Your task to perform on an android device: Add "apple airpods" to the cart on amazon.com, then select checkout. Image 0: 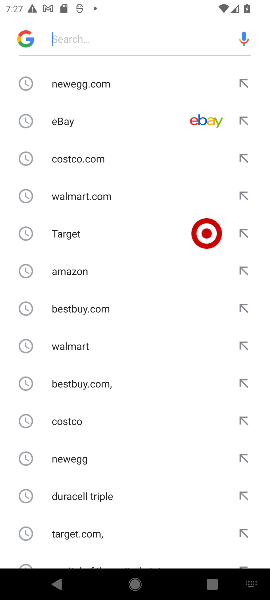
Step 0: click (90, 267)
Your task to perform on an android device: Add "apple airpods" to the cart on amazon.com, then select checkout. Image 1: 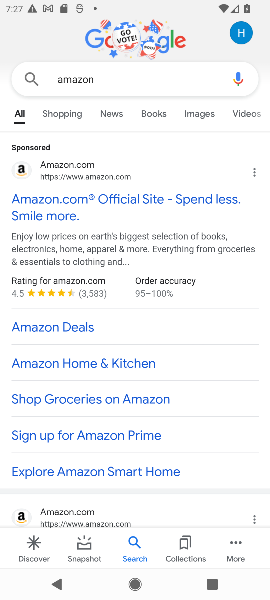
Step 1: click (30, 204)
Your task to perform on an android device: Add "apple airpods" to the cart on amazon.com, then select checkout. Image 2: 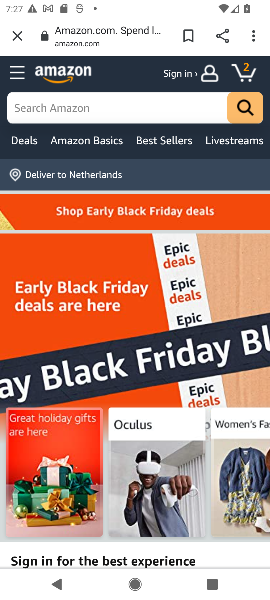
Step 2: click (150, 97)
Your task to perform on an android device: Add "apple airpods" to the cart on amazon.com, then select checkout. Image 3: 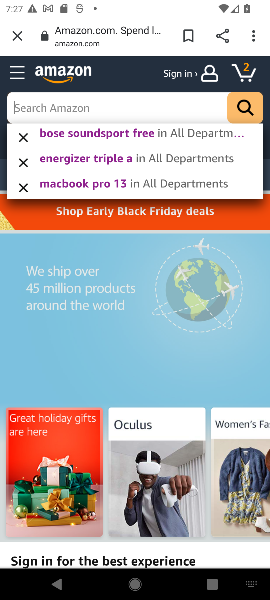
Step 3: type "apple air pods"
Your task to perform on an android device: Add "apple airpods" to the cart on amazon.com, then select checkout. Image 4: 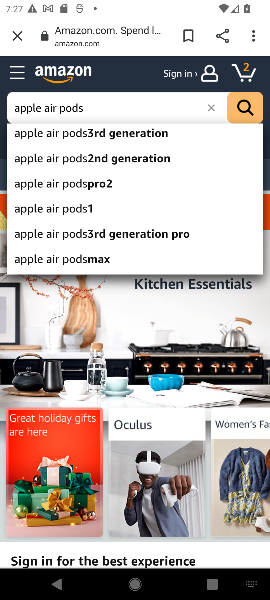
Step 4: click (255, 105)
Your task to perform on an android device: Add "apple airpods" to the cart on amazon.com, then select checkout. Image 5: 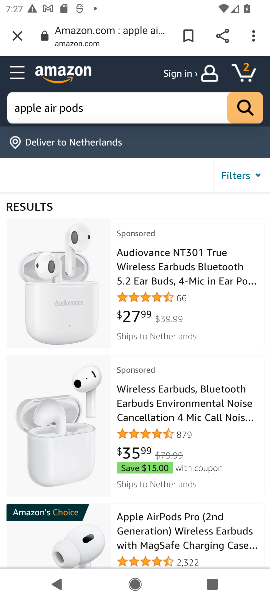
Step 5: click (159, 525)
Your task to perform on an android device: Add "apple airpods" to the cart on amazon.com, then select checkout. Image 6: 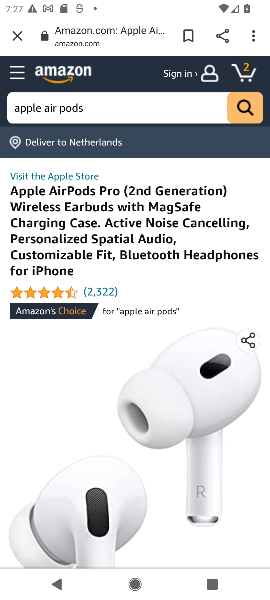
Step 6: drag from (182, 560) to (188, 147)
Your task to perform on an android device: Add "apple airpods" to the cart on amazon.com, then select checkout. Image 7: 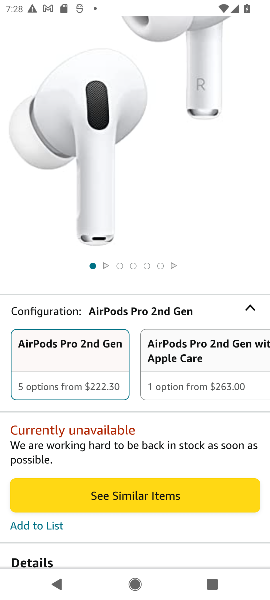
Step 7: click (152, 497)
Your task to perform on an android device: Add "apple airpods" to the cart on amazon.com, then select checkout. Image 8: 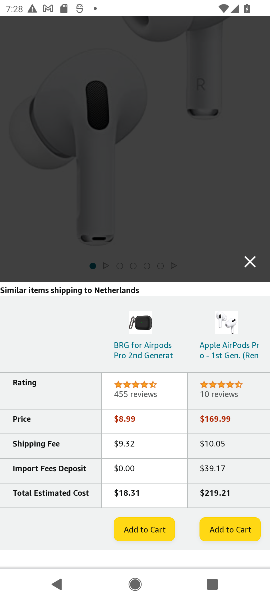
Step 8: click (209, 526)
Your task to perform on an android device: Add "apple airpods" to the cart on amazon.com, then select checkout. Image 9: 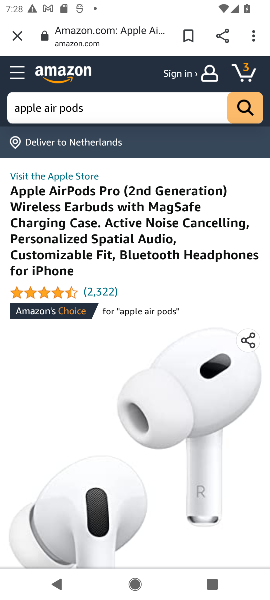
Step 9: click (245, 78)
Your task to perform on an android device: Add "apple airpods" to the cart on amazon.com, then select checkout. Image 10: 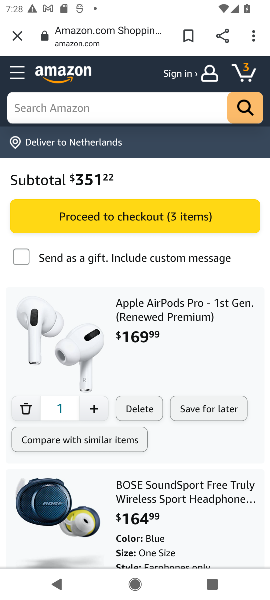
Step 10: click (185, 214)
Your task to perform on an android device: Add "apple airpods" to the cart on amazon.com, then select checkout. Image 11: 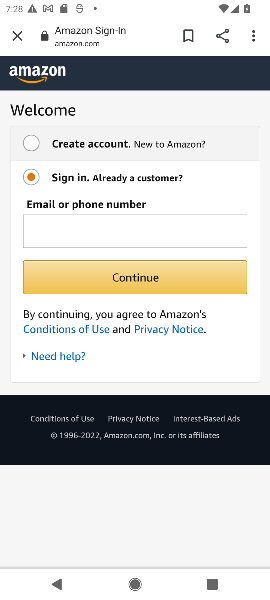
Step 11: task complete